Your task to perform on an android device: Open wifi settings Image 0: 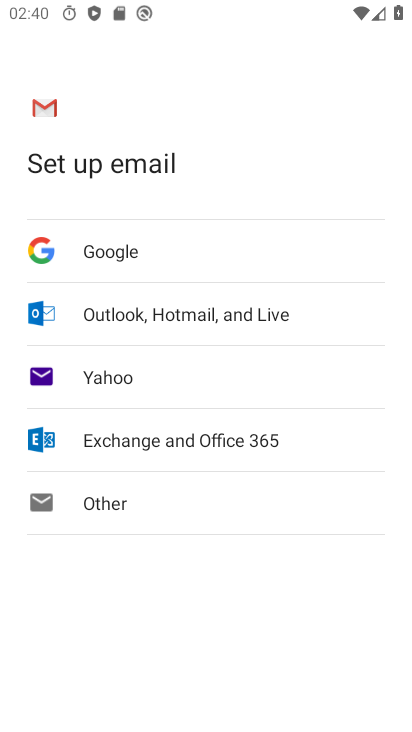
Step 0: press home button
Your task to perform on an android device: Open wifi settings Image 1: 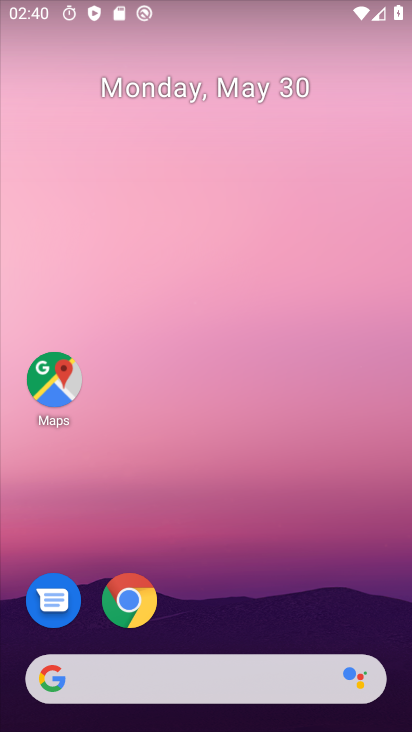
Step 1: drag from (323, 607) to (333, 70)
Your task to perform on an android device: Open wifi settings Image 2: 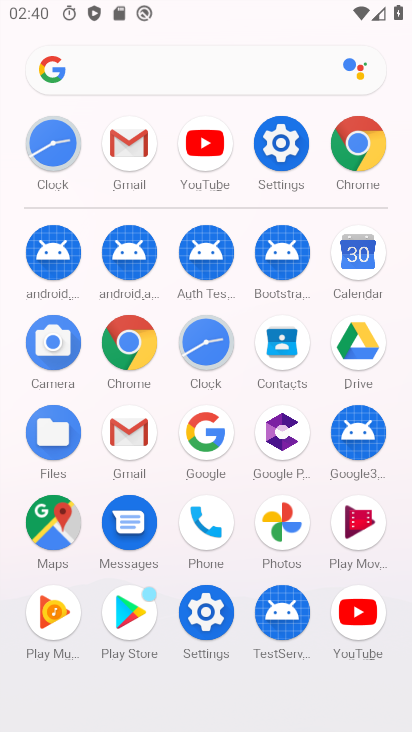
Step 2: click (284, 137)
Your task to perform on an android device: Open wifi settings Image 3: 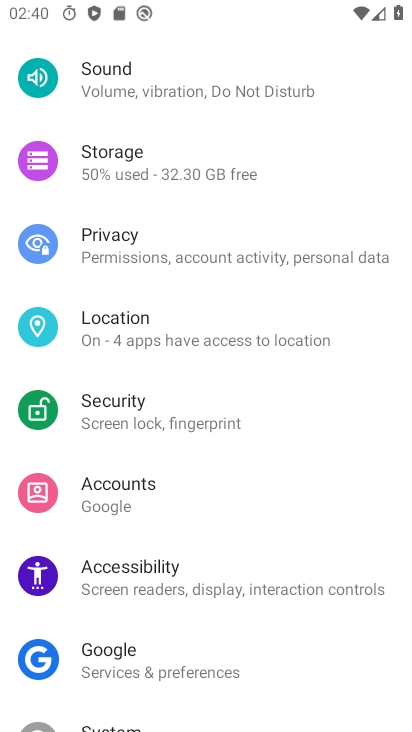
Step 3: drag from (239, 142) to (210, 532)
Your task to perform on an android device: Open wifi settings Image 4: 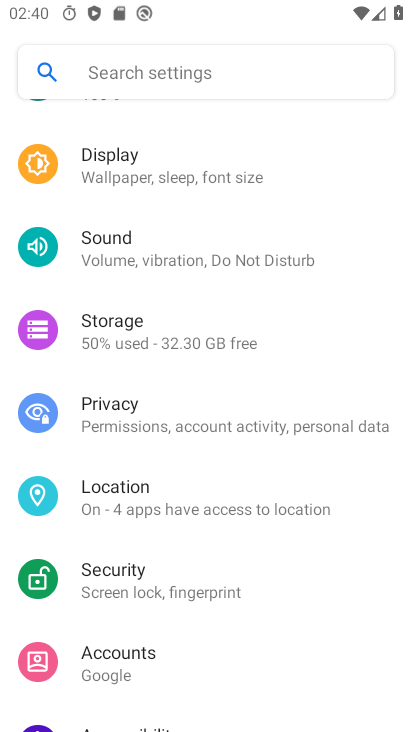
Step 4: drag from (220, 221) to (234, 627)
Your task to perform on an android device: Open wifi settings Image 5: 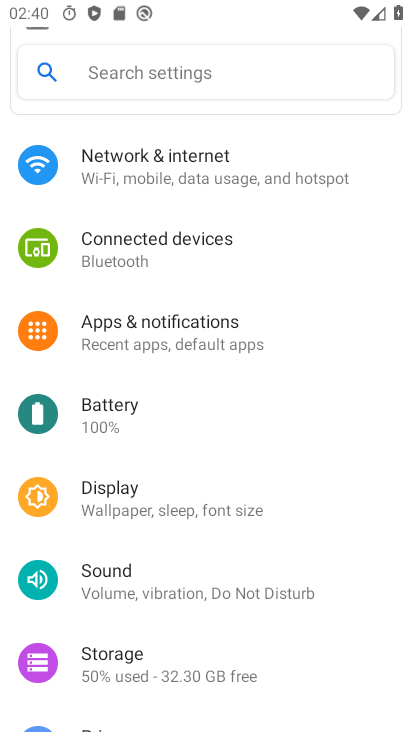
Step 5: click (201, 170)
Your task to perform on an android device: Open wifi settings Image 6: 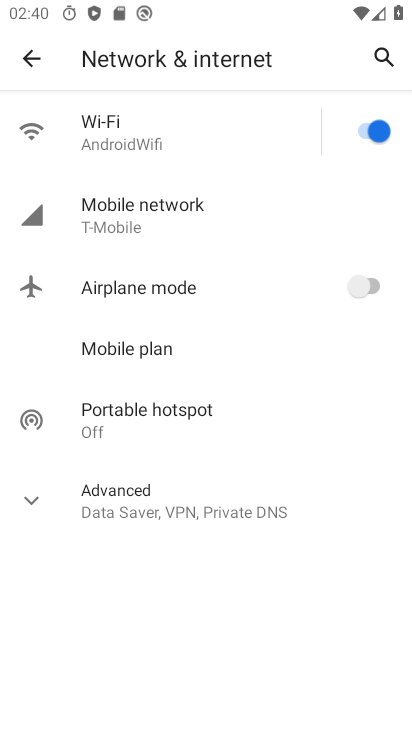
Step 6: click (125, 142)
Your task to perform on an android device: Open wifi settings Image 7: 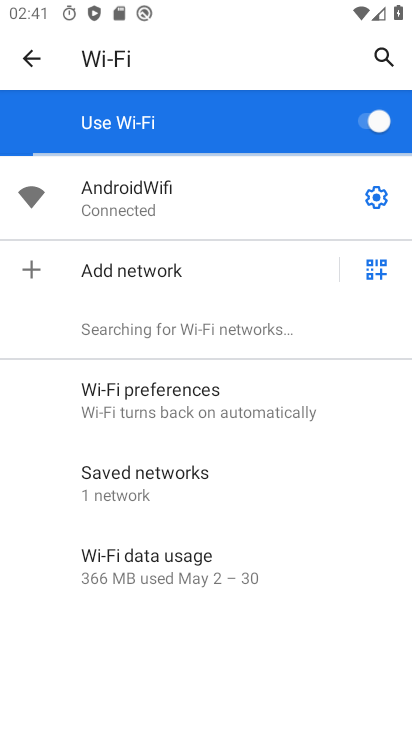
Step 7: task complete